Your task to perform on an android device: set default search engine in the chrome app Image 0: 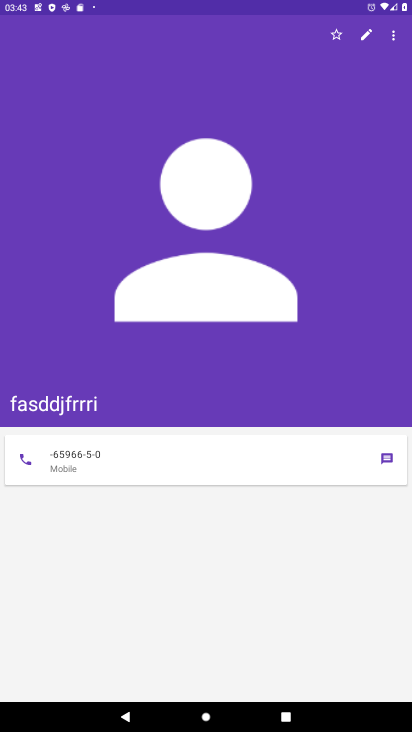
Step 0: press home button
Your task to perform on an android device: set default search engine in the chrome app Image 1: 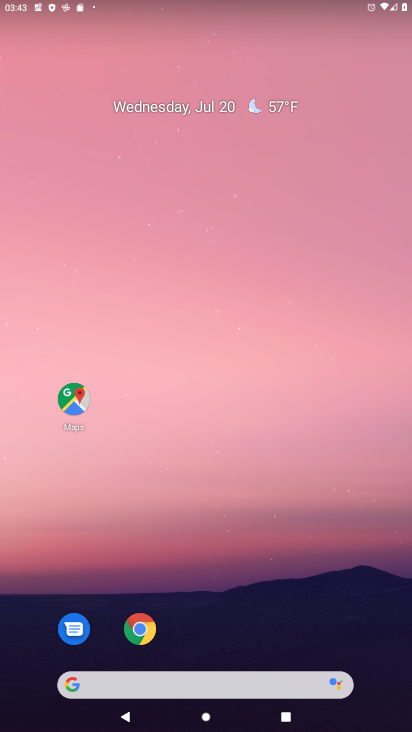
Step 1: click (136, 628)
Your task to perform on an android device: set default search engine in the chrome app Image 2: 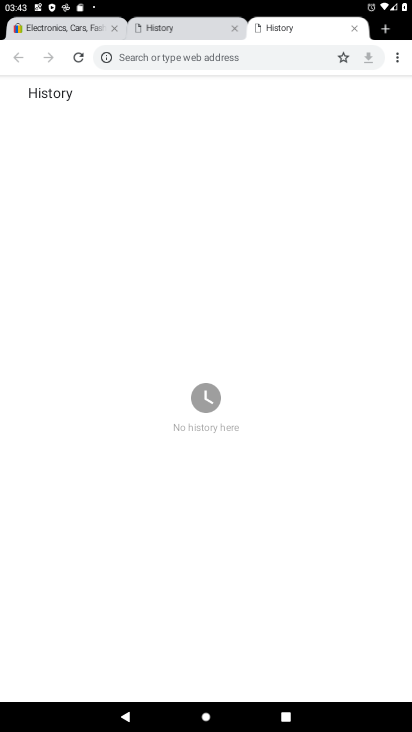
Step 2: click (397, 61)
Your task to perform on an android device: set default search engine in the chrome app Image 3: 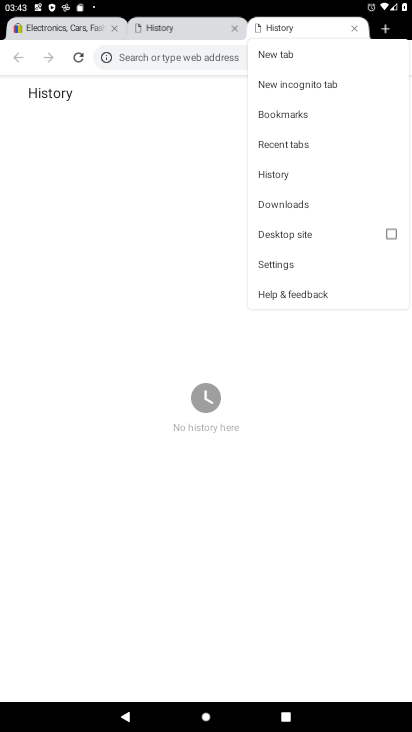
Step 3: click (275, 258)
Your task to perform on an android device: set default search engine in the chrome app Image 4: 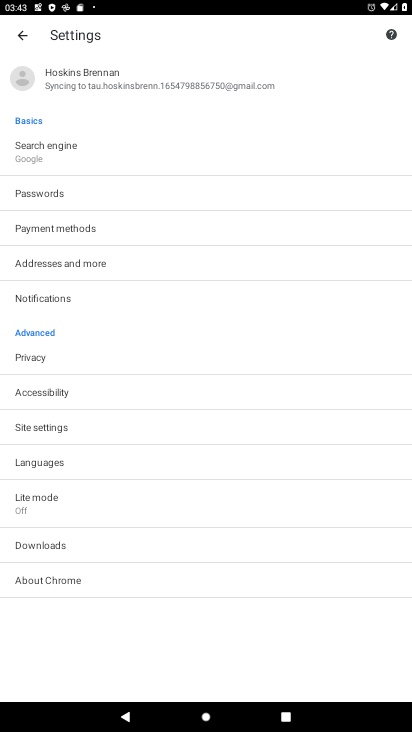
Step 4: click (32, 147)
Your task to perform on an android device: set default search engine in the chrome app Image 5: 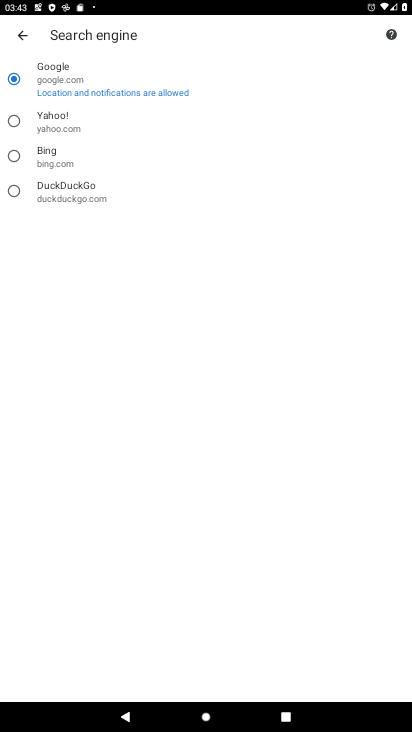
Step 5: click (12, 117)
Your task to perform on an android device: set default search engine in the chrome app Image 6: 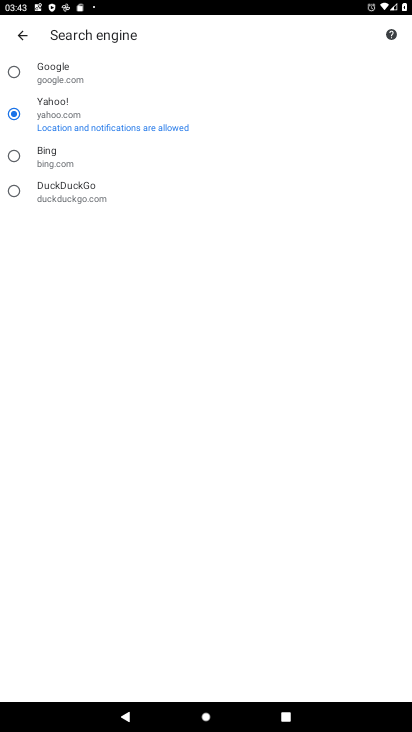
Step 6: task complete